Your task to perform on an android device: find snoozed emails in the gmail app Image 0: 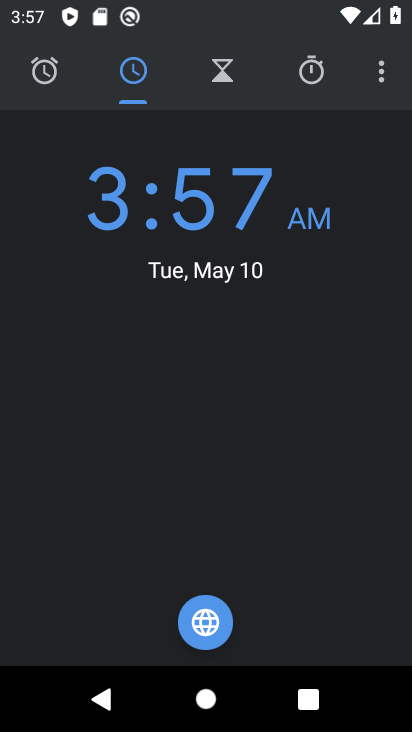
Step 0: press home button
Your task to perform on an android device: find snoozed emails in the gmail app Image 1: 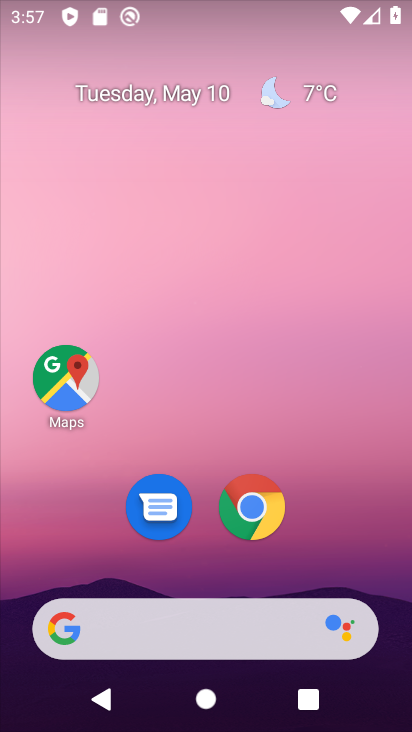
Step 1: drag from (264, 585) to (314, 116)
Your task to perform on an android device: find snoozed emails in the gmail app Image 2: 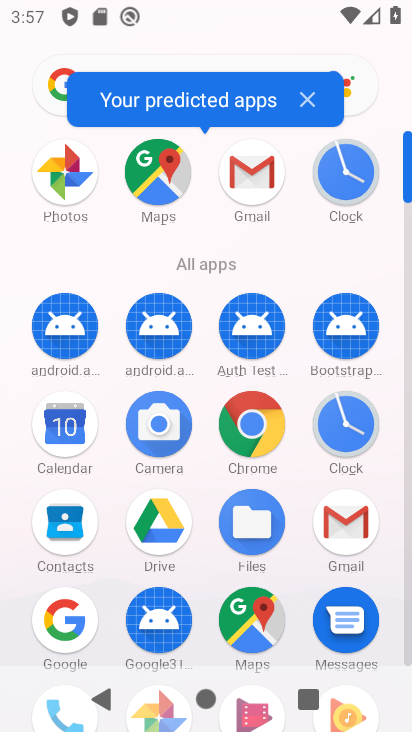
Step 2: click (248, 155)
Your task to perform on an android device: find snoozed emails in the gmail app Image 3: 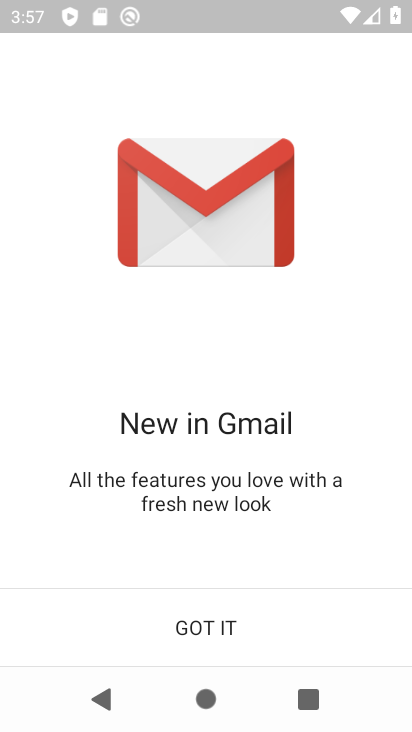
Step 3: click (180, 644)
Your task to perform on an android device: find snoozed emails in the gmail app Image 4: 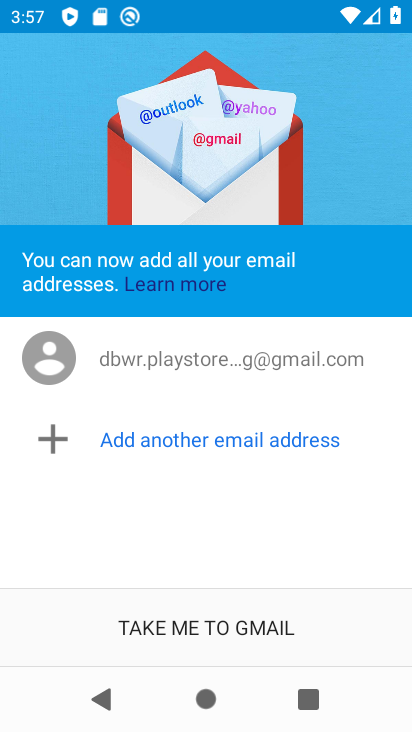
Step 4: click (180, 644)
Your task to perform on an android device: find snoozed emails in the gmail app Image 5: 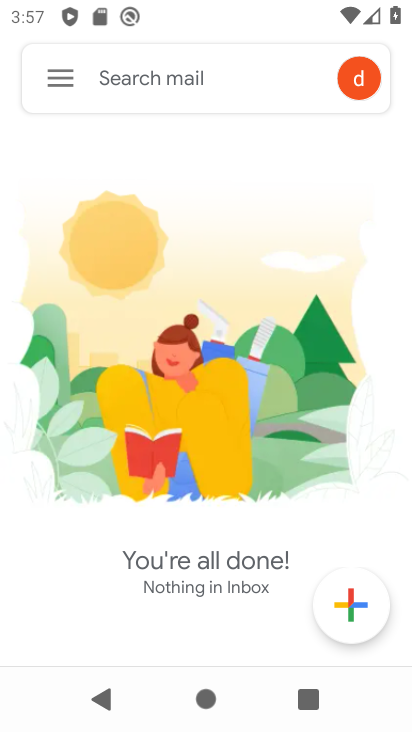
Step 5: click (61, 85)
Your task to perform on an android device: find snoozed emails in the gmail app Image 6: 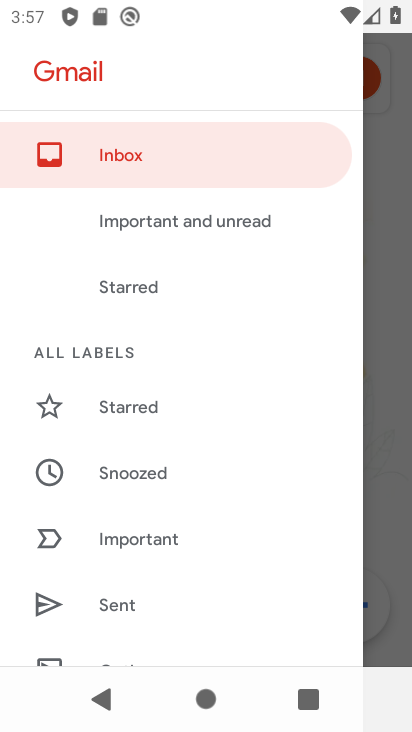
Step 6: click (137, 477)
Your task to perform on an android device: find snoozed emails in the gmail app Image 7: 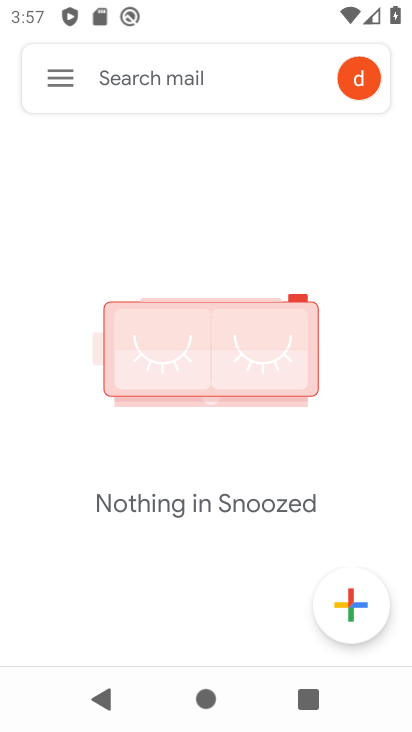
Step 7: task complete